Your task to perform on an android device: Go to display settings Image 0: 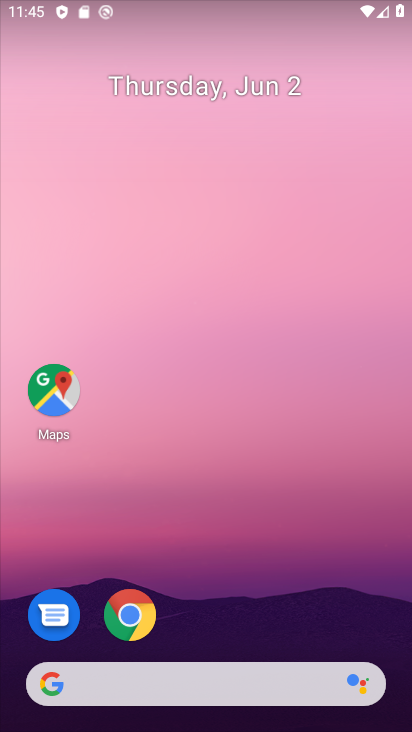
Step 0: drag from (244, 672) to (186, 147)
Your task to perform on an android device: Go to display settings Image 1: 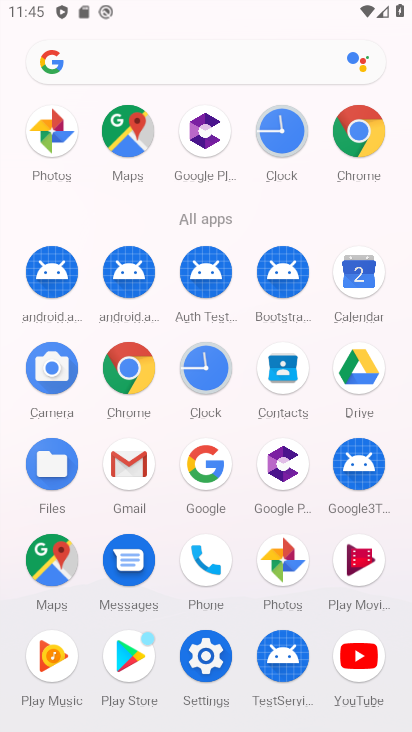
Step 1: click (193, 660)
Your task to perform on an android device: Go to display settings Image 2: 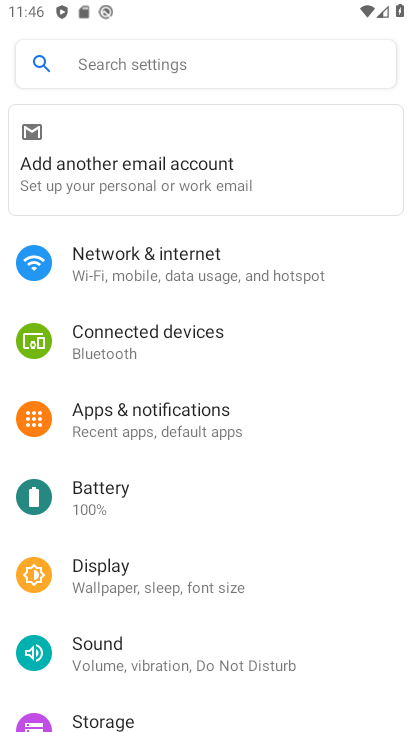
Step 2: click (184, 586)
Your task to perform on an android device: Go to display settings Image 3: 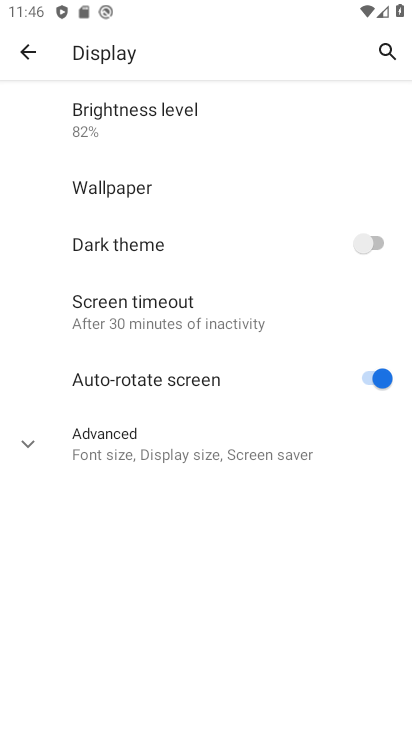
Step 3: task complete